Your task to perform on an android device: Show me the alarms in the clock app Image 0: 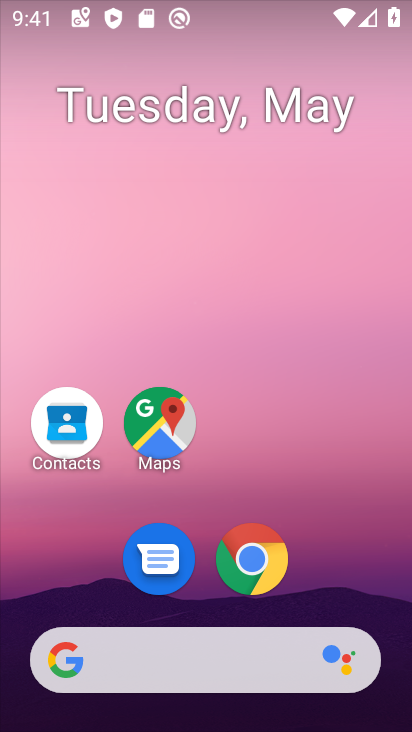
Step 0: drag from (337, 580) to (310, 126)
Your task to perform on an android device: Show me the alarms in the clock app Image 1: 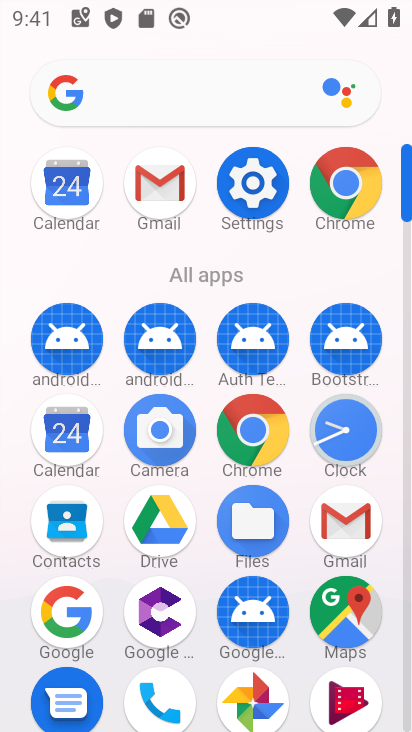
Step 1: click (344, 432)
Your task to perform on an android device: Show me the alarms in the clock app Image 2: 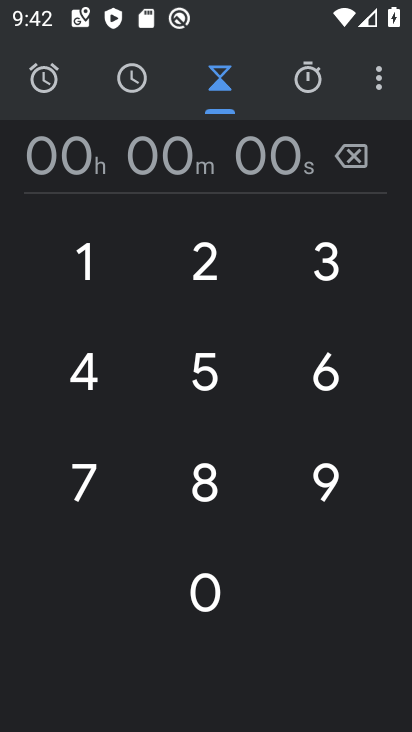
Step 2: click (56, 78)
Your task to perform on an android device: Show me the alarms in the clock app Image 3: 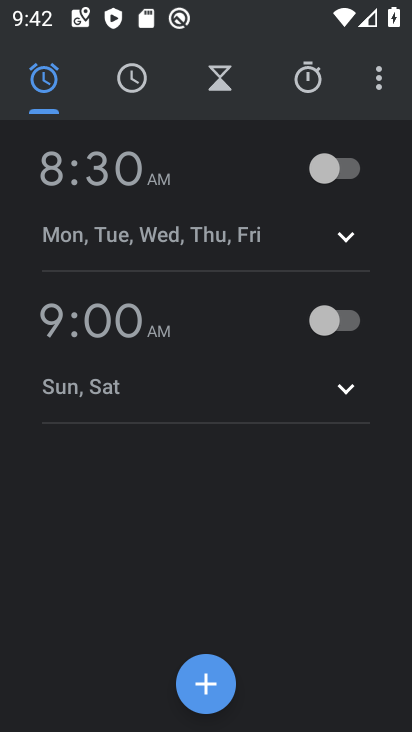
Step 3: click (276, 180)
Your task to perform on an android device: Show me the alarms in the clock app Image 4: 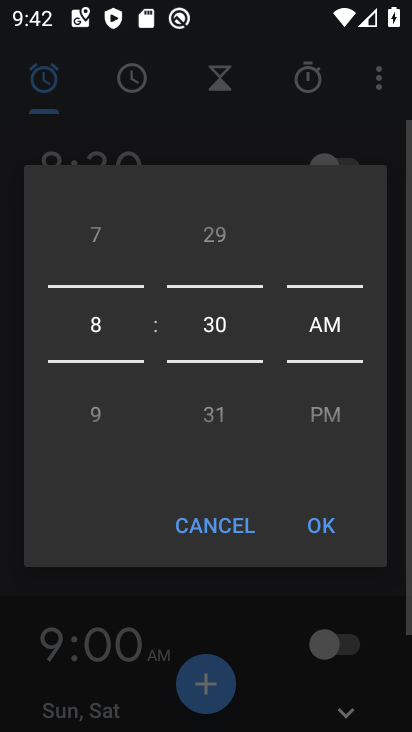
Step 4: task complete